Your task to perform on an android device: change alarm snooze length Image 0: 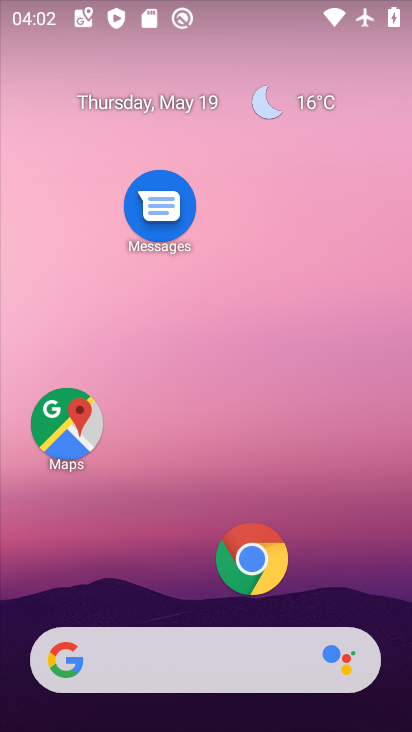
Step 0: drag from (180, 593) to (236, 228)
Your task to perform on an android device: change alarm snooze length Image 1: 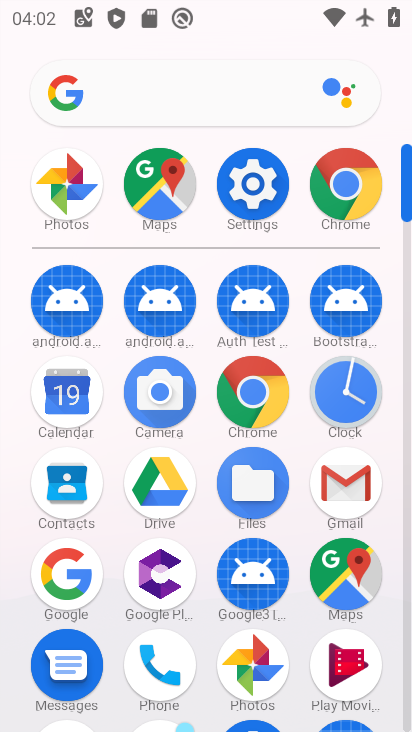
Step 1: click (336, 381)
Your task to perform on an android device: change alarm snooze length Image 2: 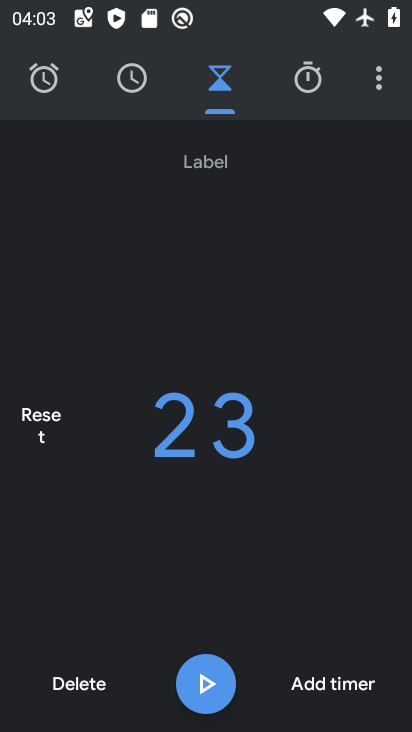
Step 2: click (369, 71)
Your task to perform on an android device: change alarm snooze length Image 3: 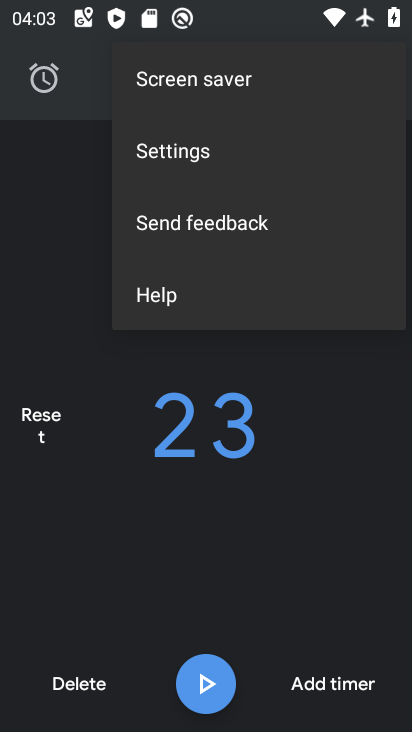
Step 3: click (193, 145)
Your task to perform on an android device: change alarm snooze length Image 4: 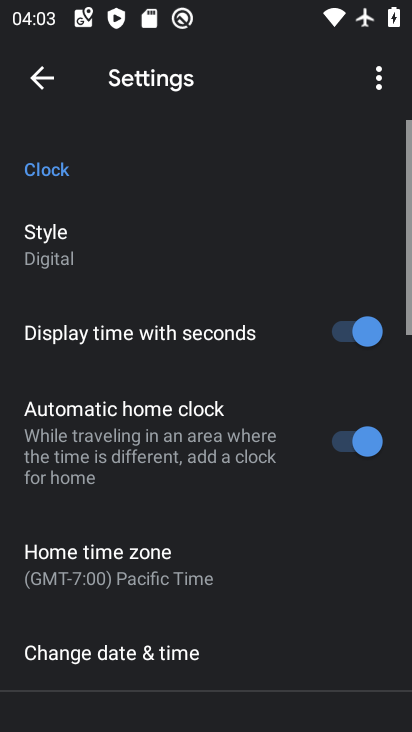
Step 4: drag from (199, 550) to (199, 317)
Your task to perform on an android device: change alarm snooze length Image 5: 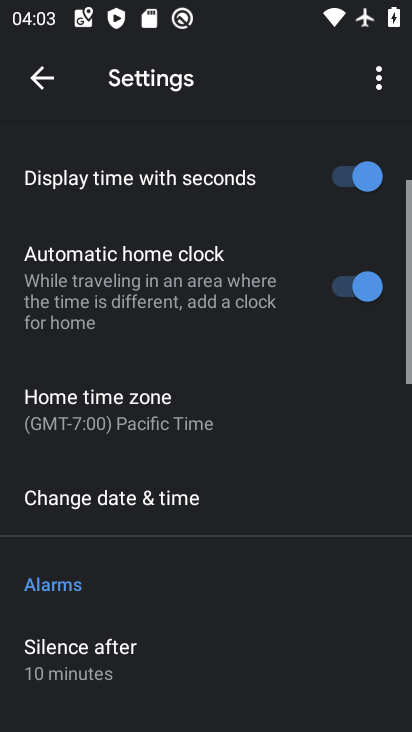
Step 5: drag from (201, 627) to (198, 321)
Your task to perform on an android device: change alarm snooze length Image 6: 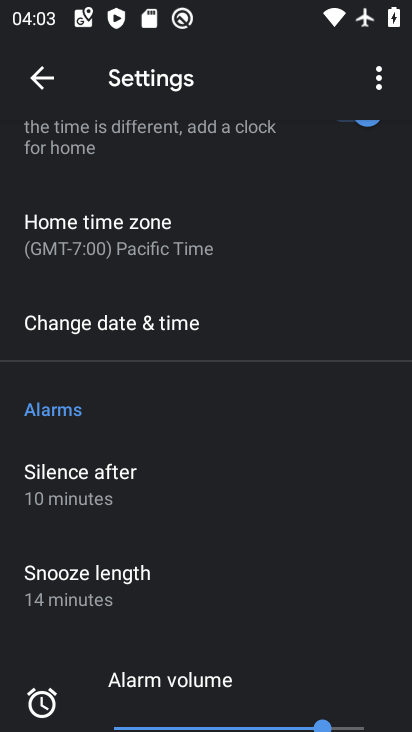
Step 6: click (149, 575)
Your task to perform on an android device: change alarm snooze length Image 7: 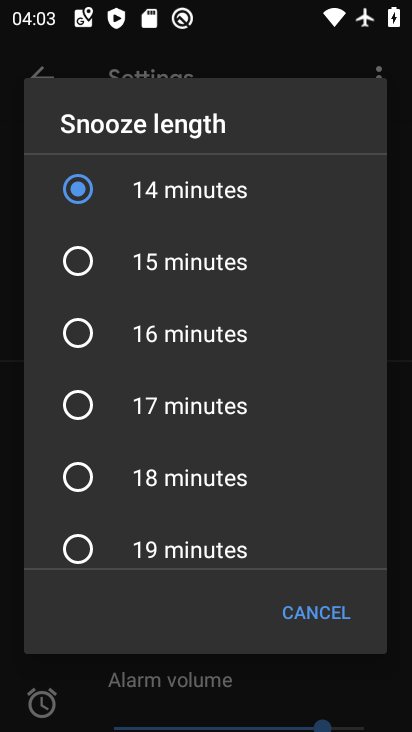
Step 7: click (129, 482)
Your task to perform on an android device: change alarm snooze length Image 8: 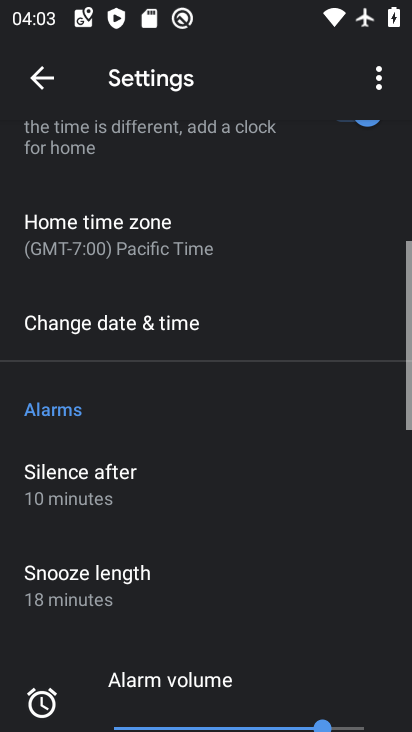
Step 8: task complete